Your task to perform on an android device: Open maps Image 0: 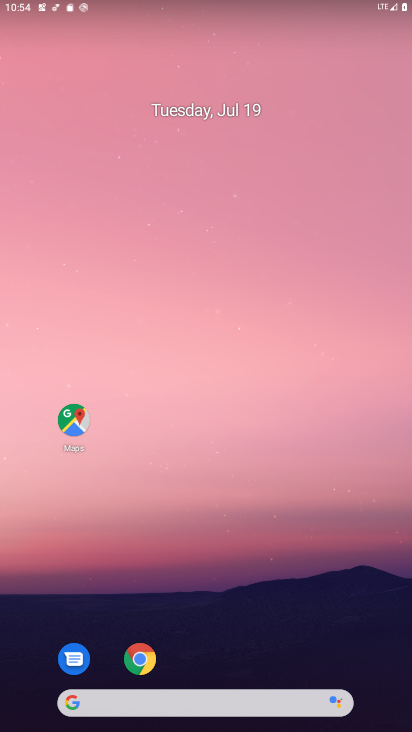
Step 0: click (75, 415)
Your task to perform on an android device: Open maps Image 1: 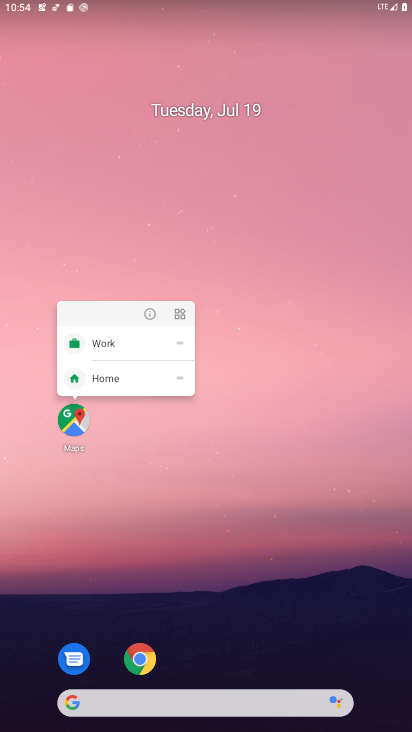
Step 1: click (151, 309)
Your task to perform on an android device: Open maps Image 2: 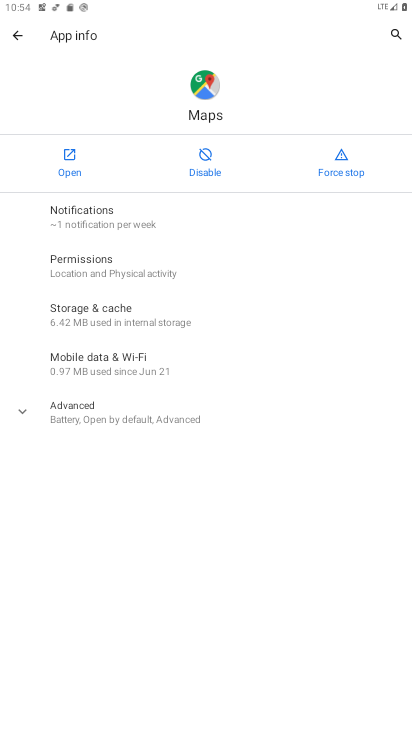
Step 2: click (58, 162)
Your task to perform on an android device: Open maps Image 3: 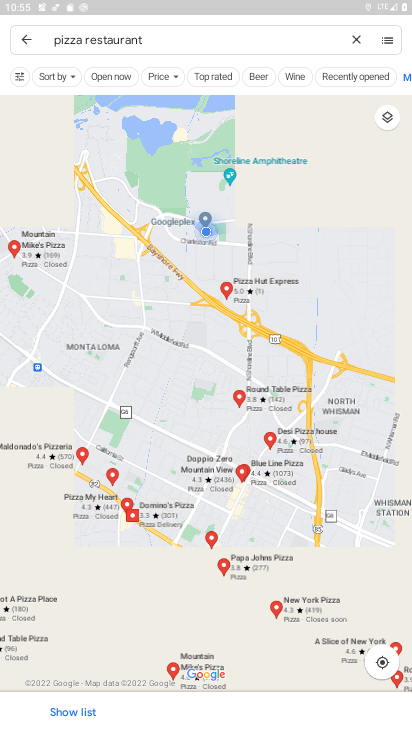
Step 3: click (359, 37)
Your task to perform on an android device: Open maps Image 4: 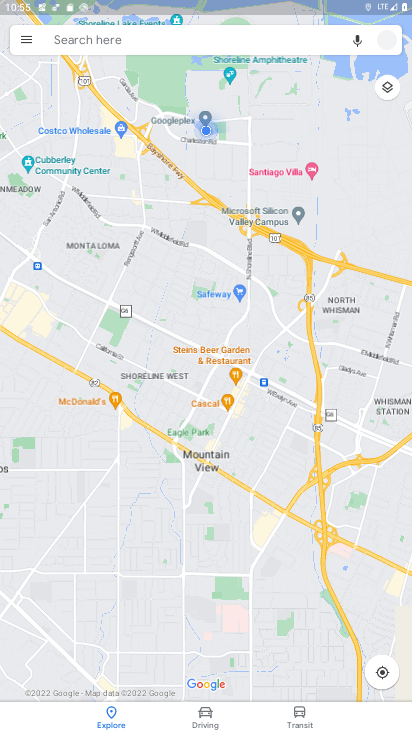
Step 4: click (22, 37)
Your task to perform on an android device: Open maps Image 5: 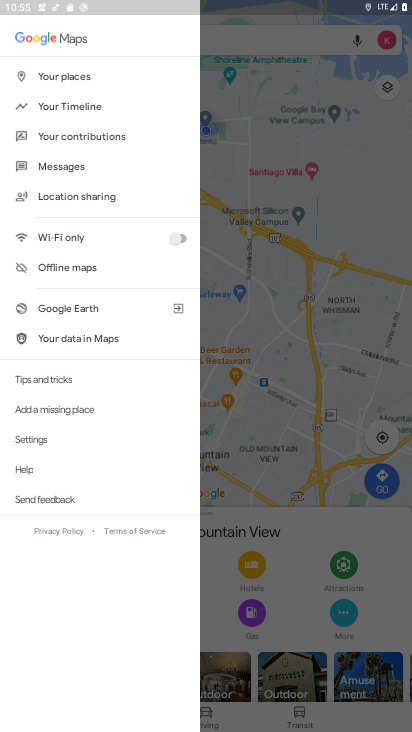
Step 5: click (277, 44)
Your task to perform on an android device: Open maps Image 6: 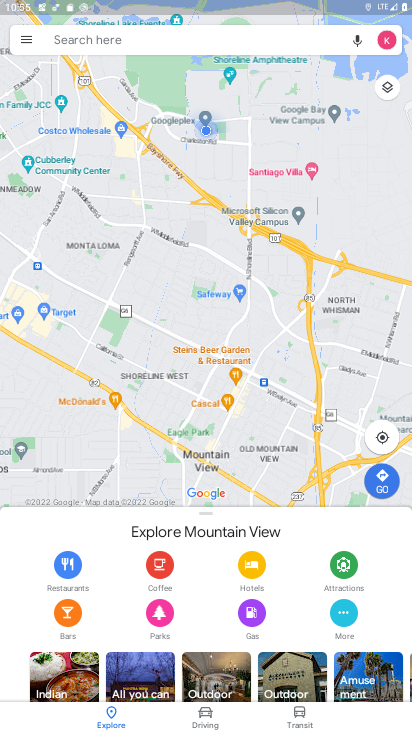
Step 6: task complete